Your task to perform on an android device: open app "Instagram" (install if not already installed) Image 0: 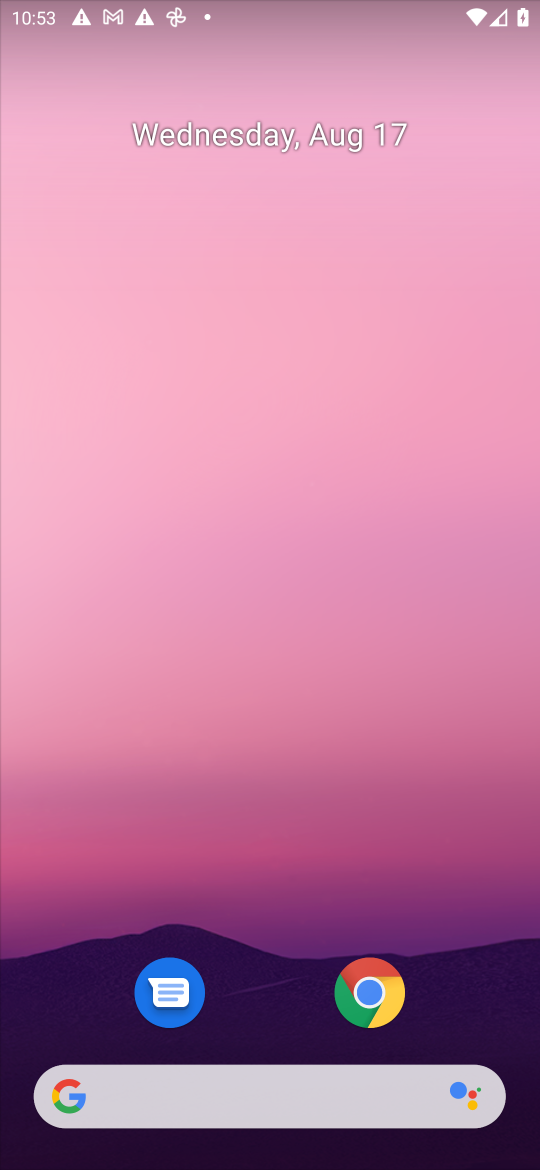
Step 0: drag from (511, 970) to (157, 61)
Your task to perform on an android device: open app "Instagram" (install if not already installed) Image 1: 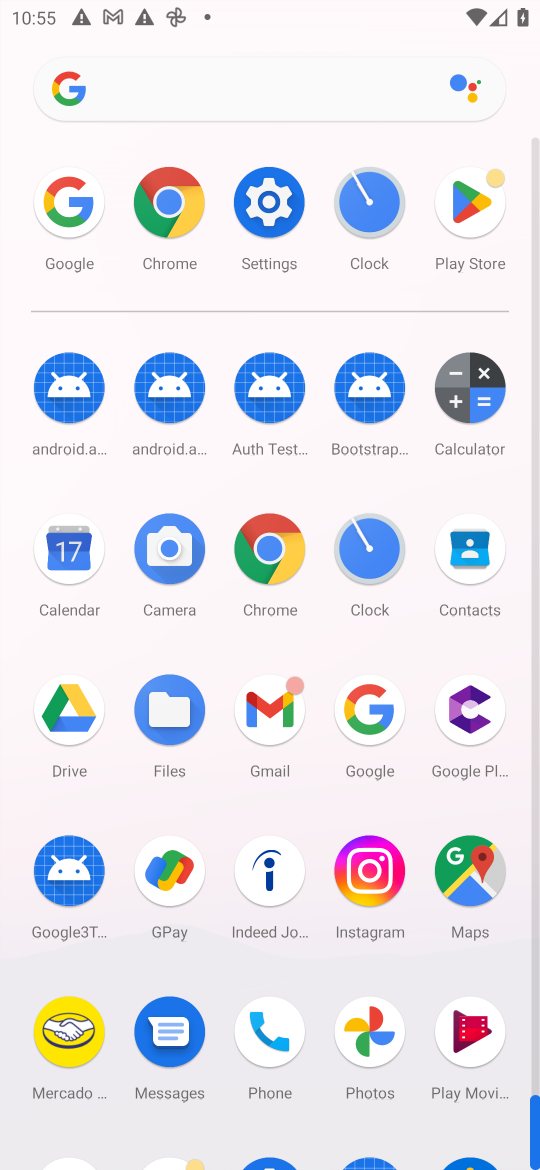
Step 1: click (466, 191)
Your task to perform on an android device: open app "Instagram" (install if not already installed) Image 2: 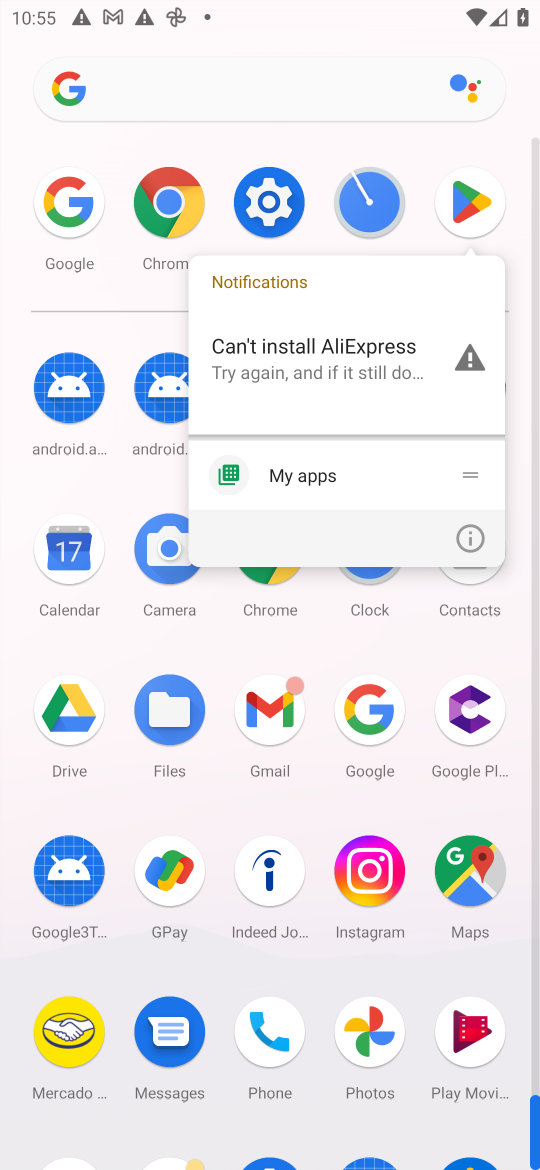
Step 2: click (462, 182)
Your task to perform on an android device: open app "Instagram" (install if not already installed) Image 3: 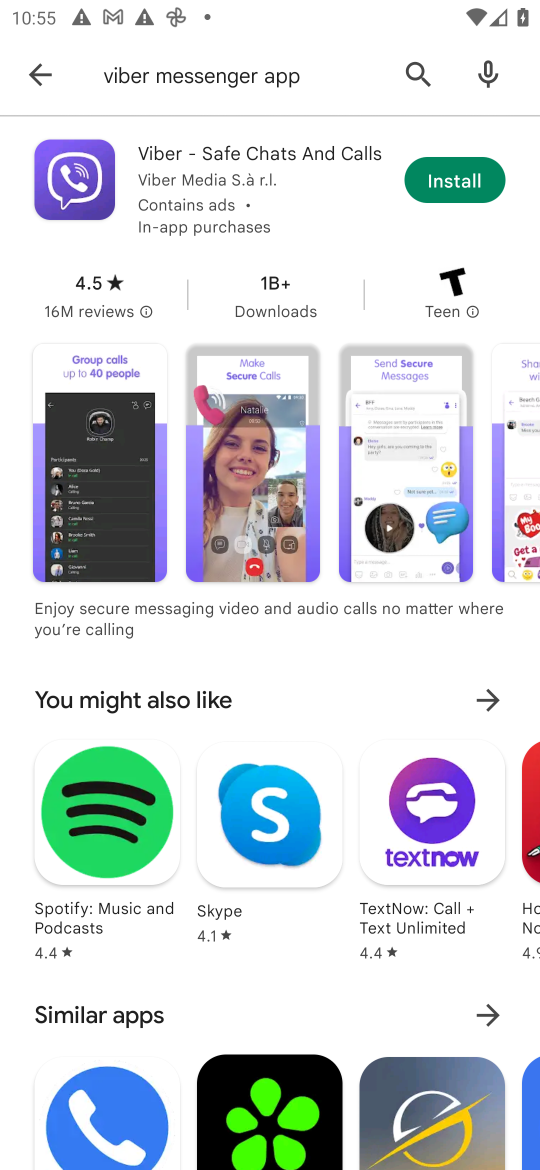
Step 3: press back button
Your task to perform on an android device: open app "Instagram" (install if not already installed) Image 4: 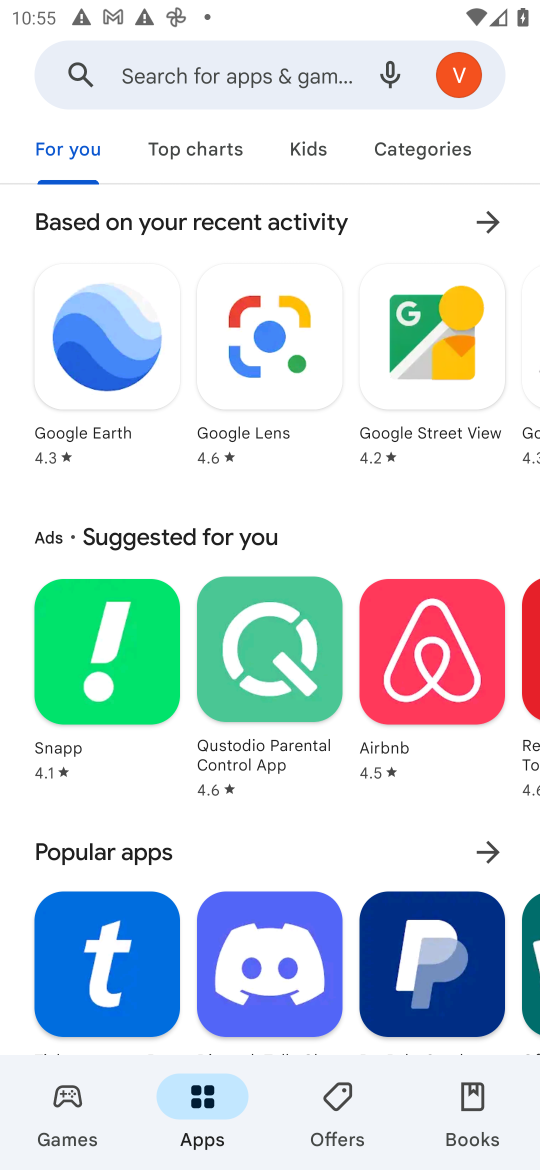
Step 4: click (178, 73)
Your task to perform on an android device: open app "Instagram" (install if not already installed) Image 5: 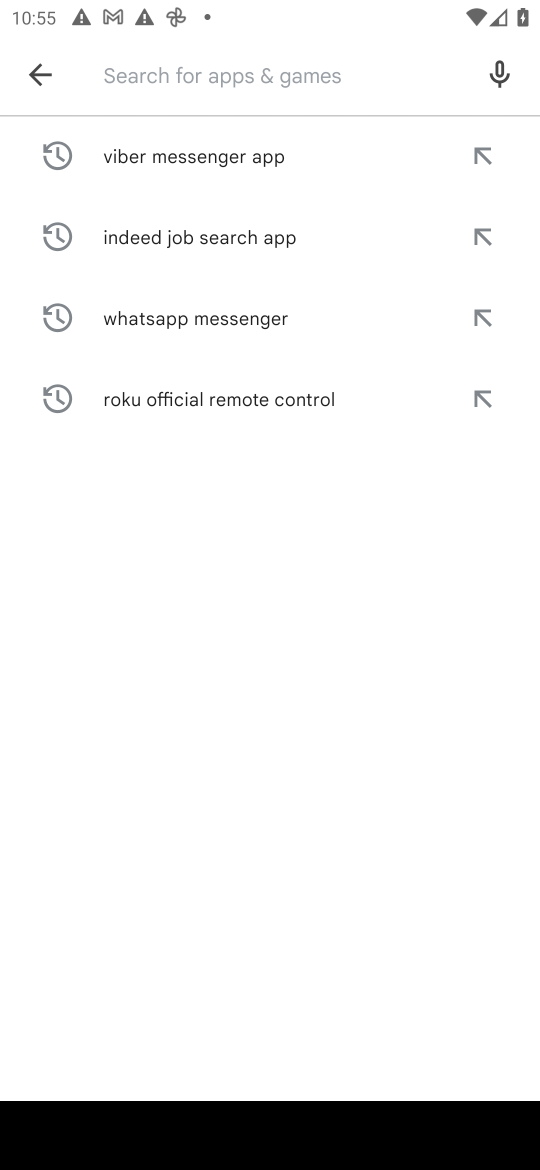
Step 5: type "Instagram"
Your task to perform on an android device: open app "Instagram" (install if not already installed) Image 6: 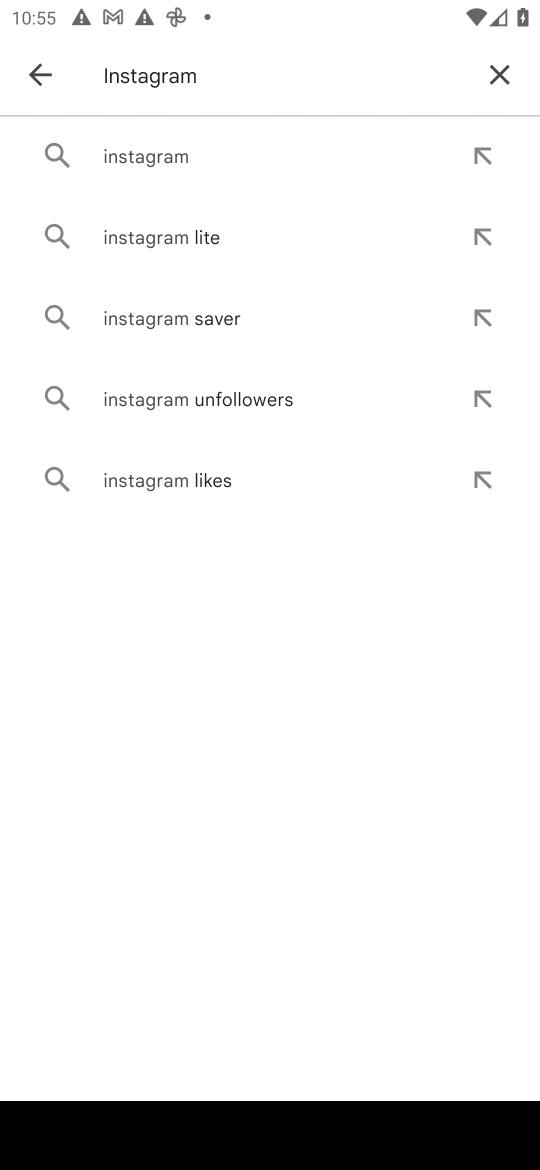
Step 6: click (131, 169)
Your task to perform on an android device: open app "Instagram" (install if not already installed) Image 7: 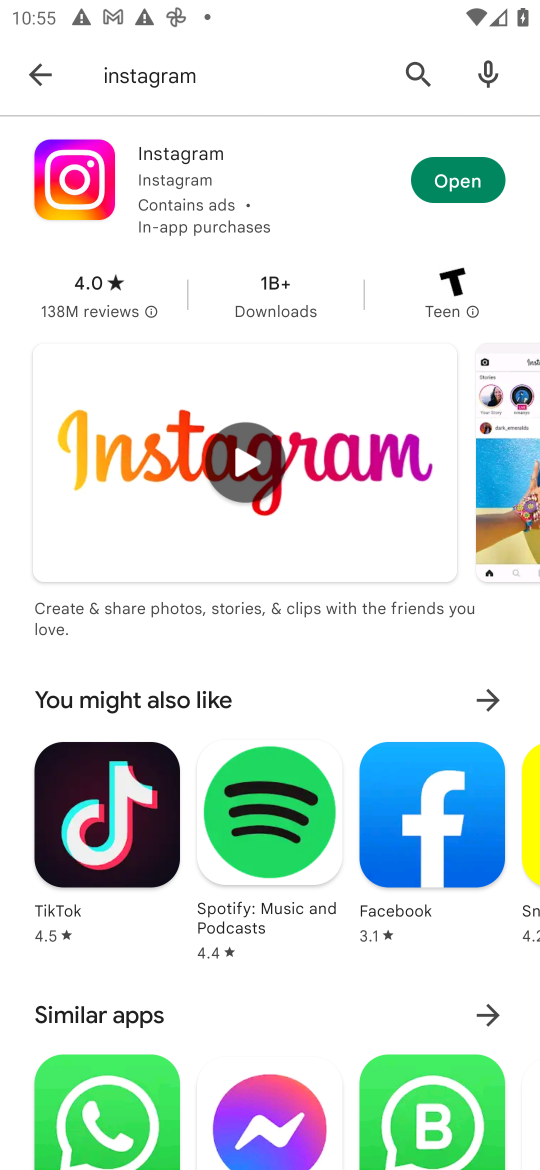
Step 7: task complete